Your task to perform on an android device: Go to display settings Image 0: 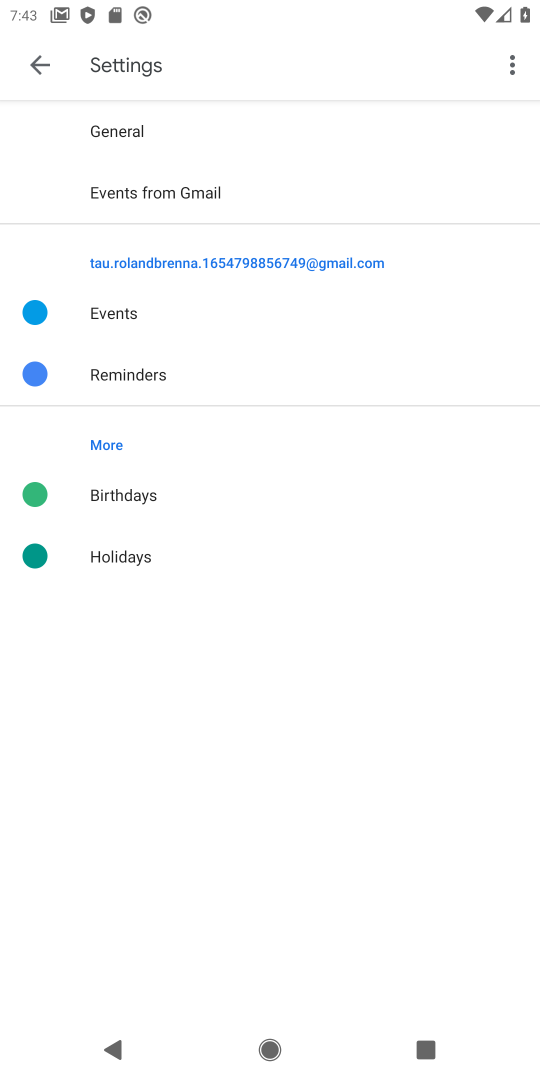
Step 0: press home button
Your task to perform on an android device: Go to display settings Image 1: 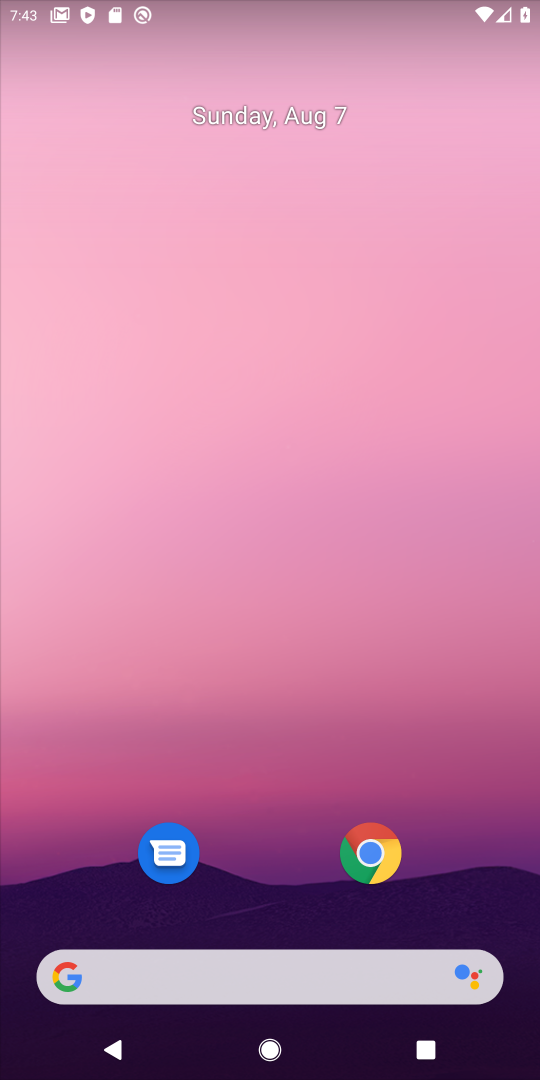
Step 1: drag from (302, 470) to (318, 3)
Your task to perform on an android device: Go to display settings Image 2: 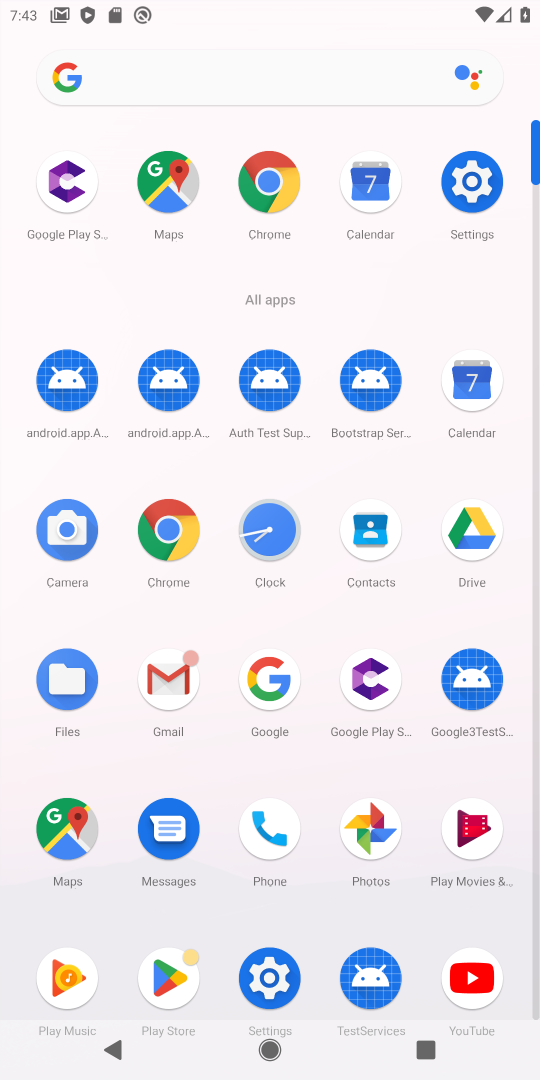
Step 2: click (260, 973)
Your task to perform on an android device: Go to display settings Image 3: 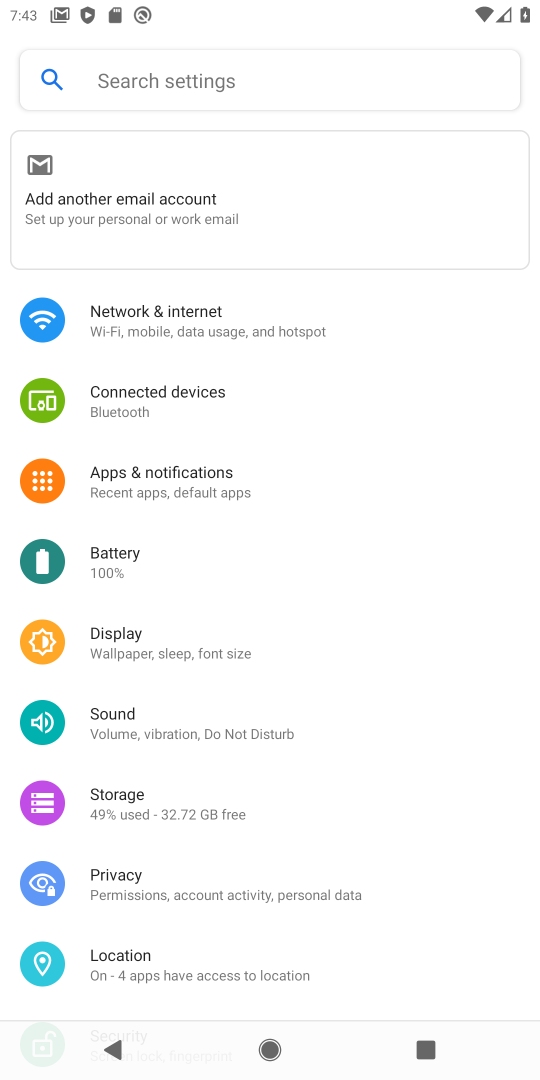
Step 3: click (113, 654)
Your task to perform on an android device: Go to display settings Image 4: 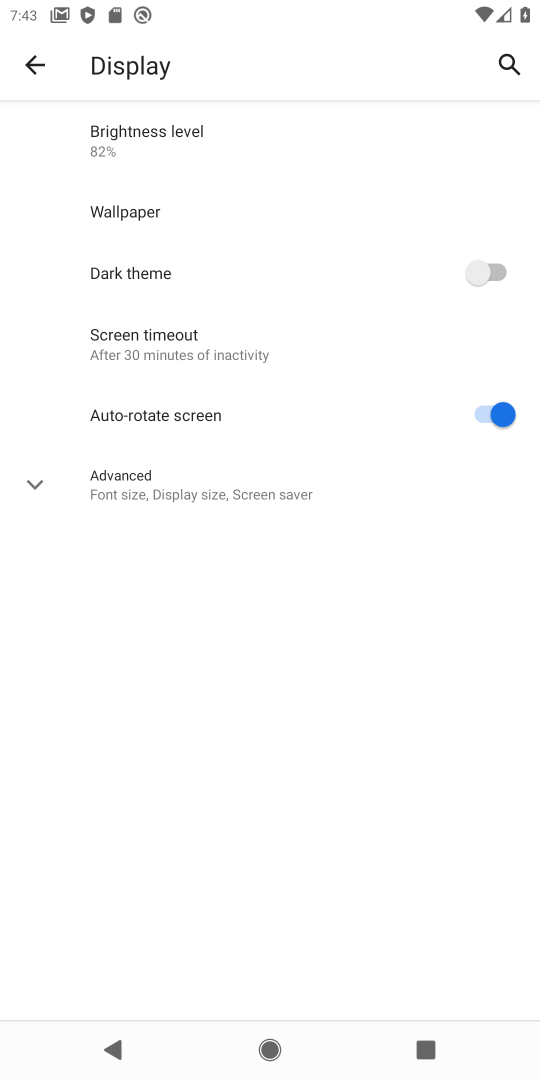
Step 4: task complete